Your task to perform on an android device: turn off smart reply in the gmail app Image 0: 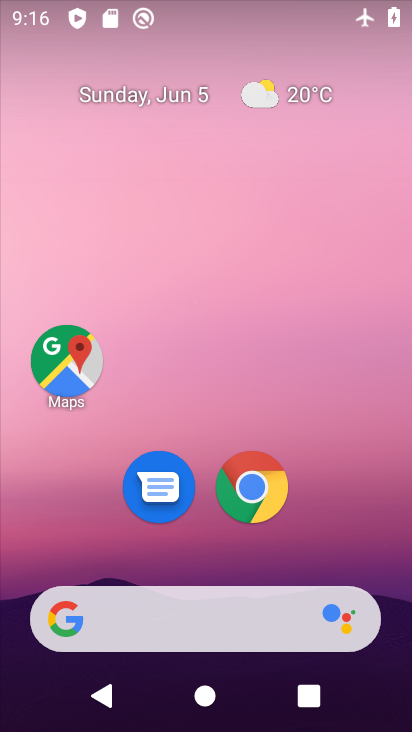
Step 0: drag from (201, 604) to (189, 0)
Your task to perform on an android device: turn off smart reply in the gmail app Image 1: 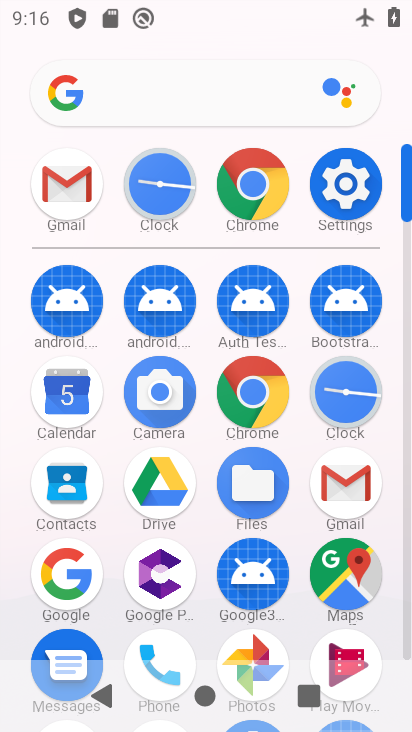
Step 1: click (345, 472)
Your task to perform on an android device: turn off smart reply in the gmail app Image 2: 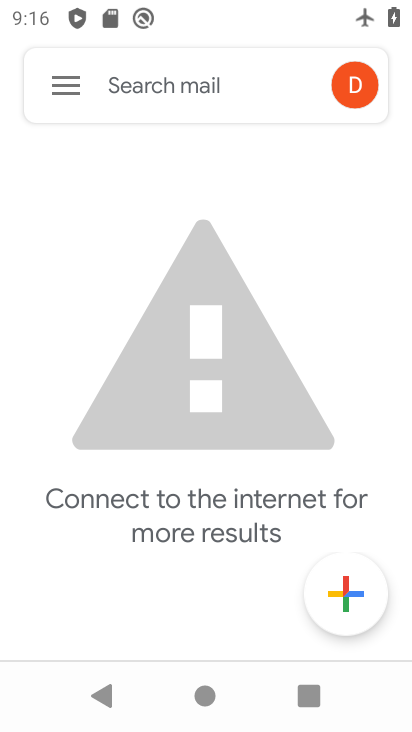
Step 2: click (70, 83)
Your task to perform on an android device: turn off smart reply in the gmail app Image 3: 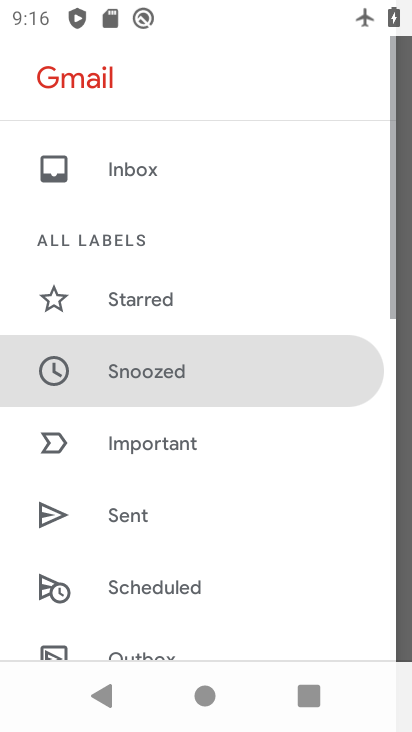
Step 3: drag from (194, 570) to (257, 188)
Your task to perform on an android device: turn off smart reply in the gmail app Image 4: 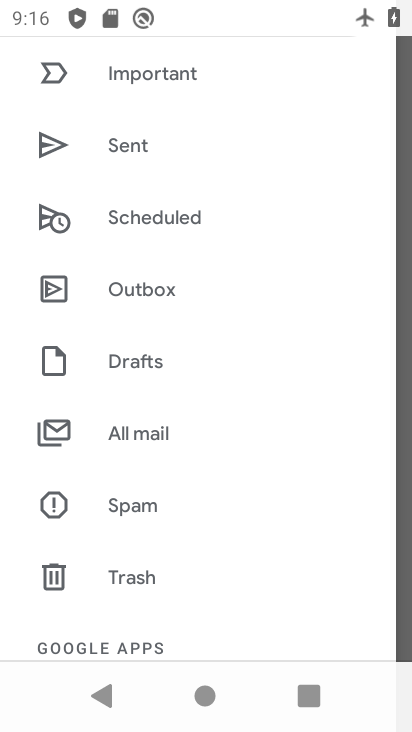
Step 4: drag from (155, 578) to (221, 161)
Your task to perform on an android device: turn off smart reply in the gmail app Image 5: 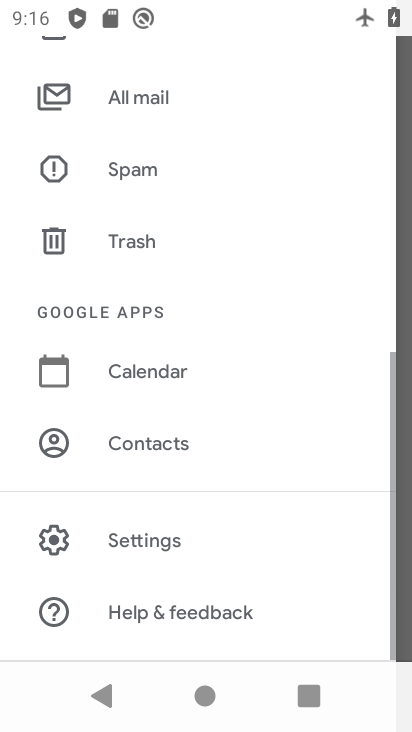
Step 5: click (204, 544)
Your task to perform on an android device: turn off smart reply in the gmail app Image 6: 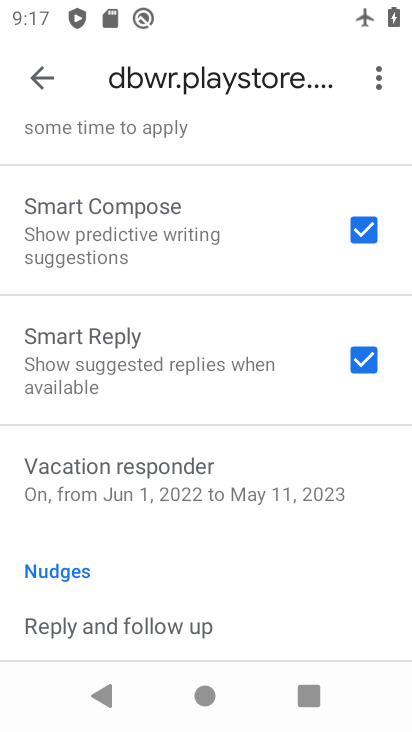
Step 6: drag from (234, 555) to (230, 425)
Your task to perform on an android device: turn off smart reply in the gmail app Image 7: 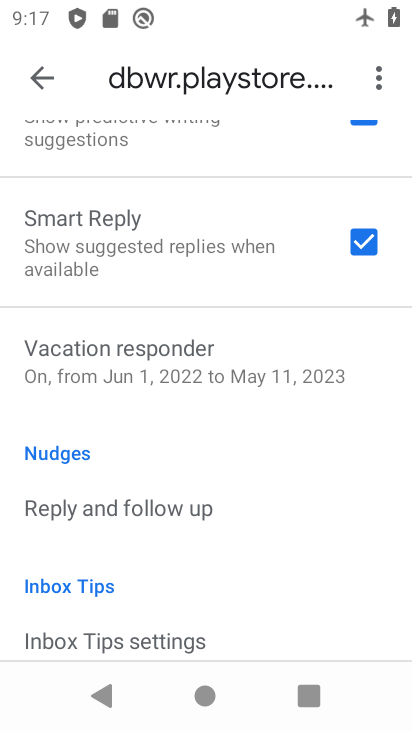
Step 7: click (367, 246)
Your task to perform on an android device: turn off smart reply in the gmail app Image 8: 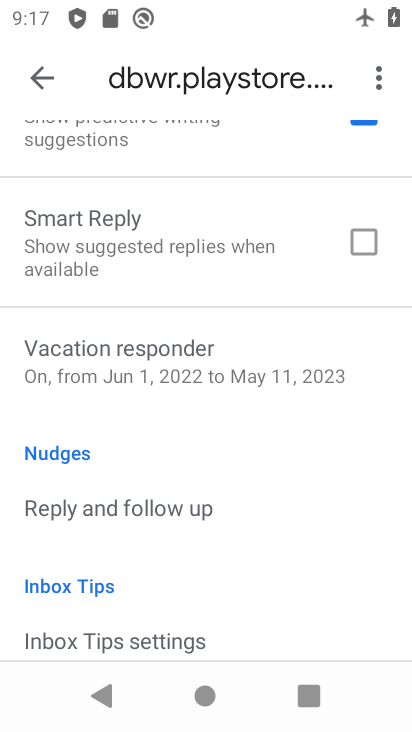
Step 8: task complete